Your task to perform on an android device: Add logitech g pro to the cart on target.com, then select checkout. Image 0: 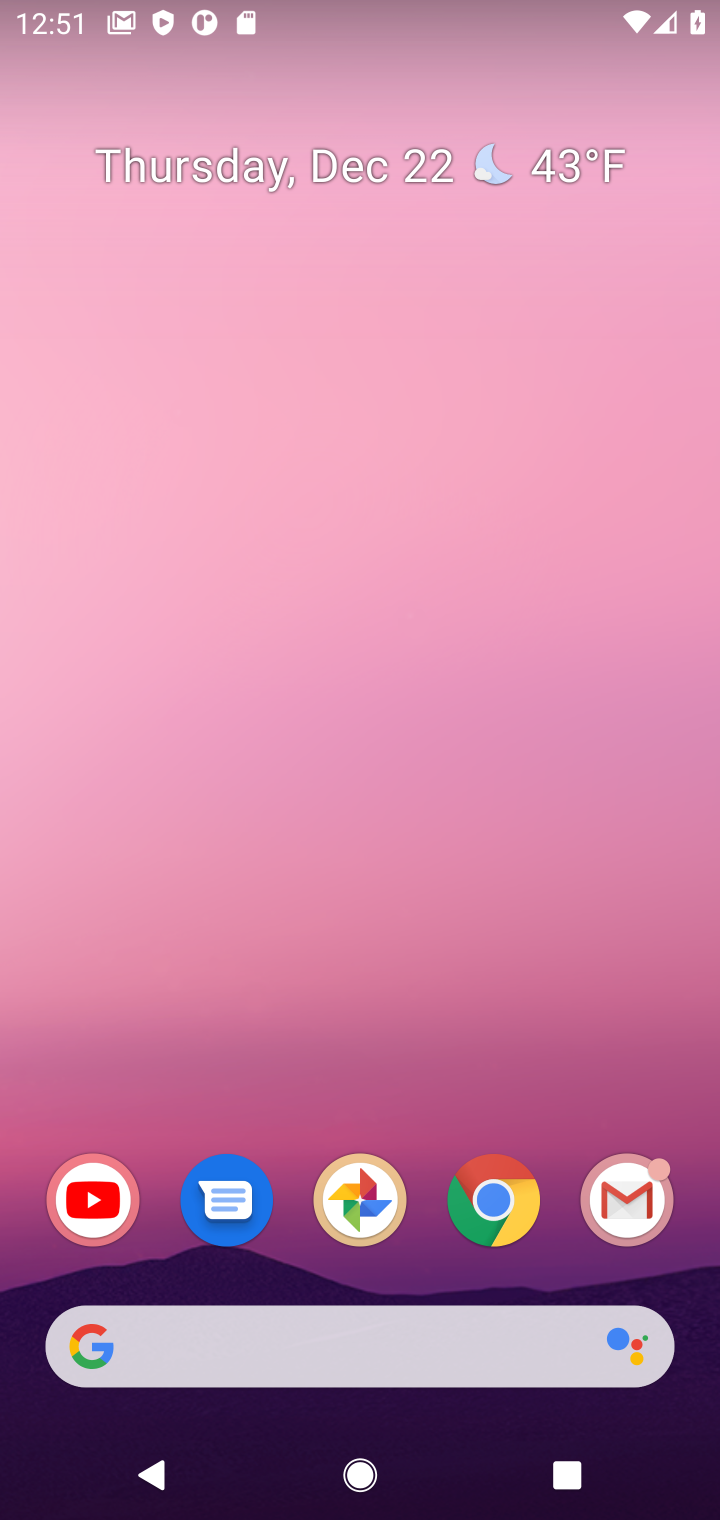
Step 0: click (491, 1207)
Your task to perform on an android device: Add logitech g pro to the cart on target.com, then select checkout. Image 1: 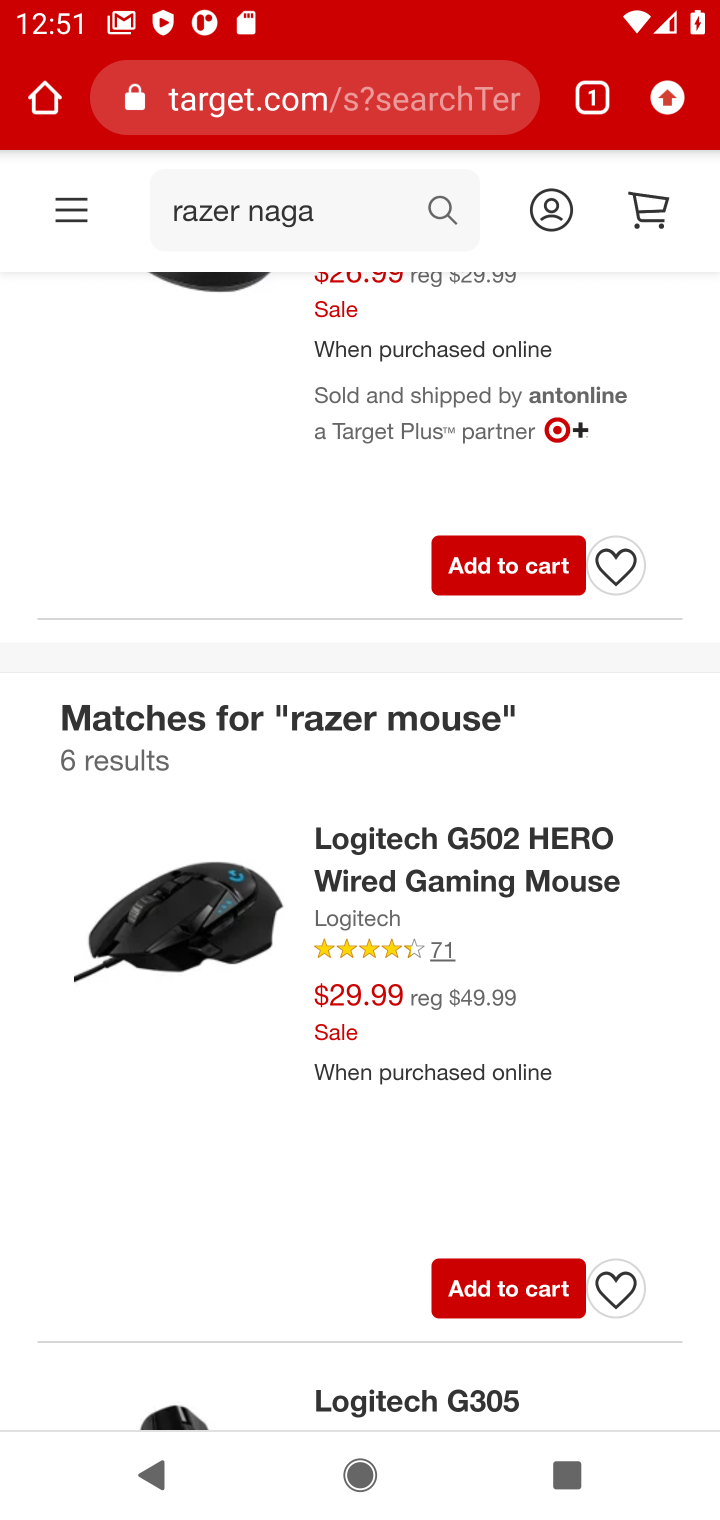
Step 1: click (434, 200)
Your task to perform on an android device: Add logitech g pro to the cart on target.com, then select checkout. Image 2: 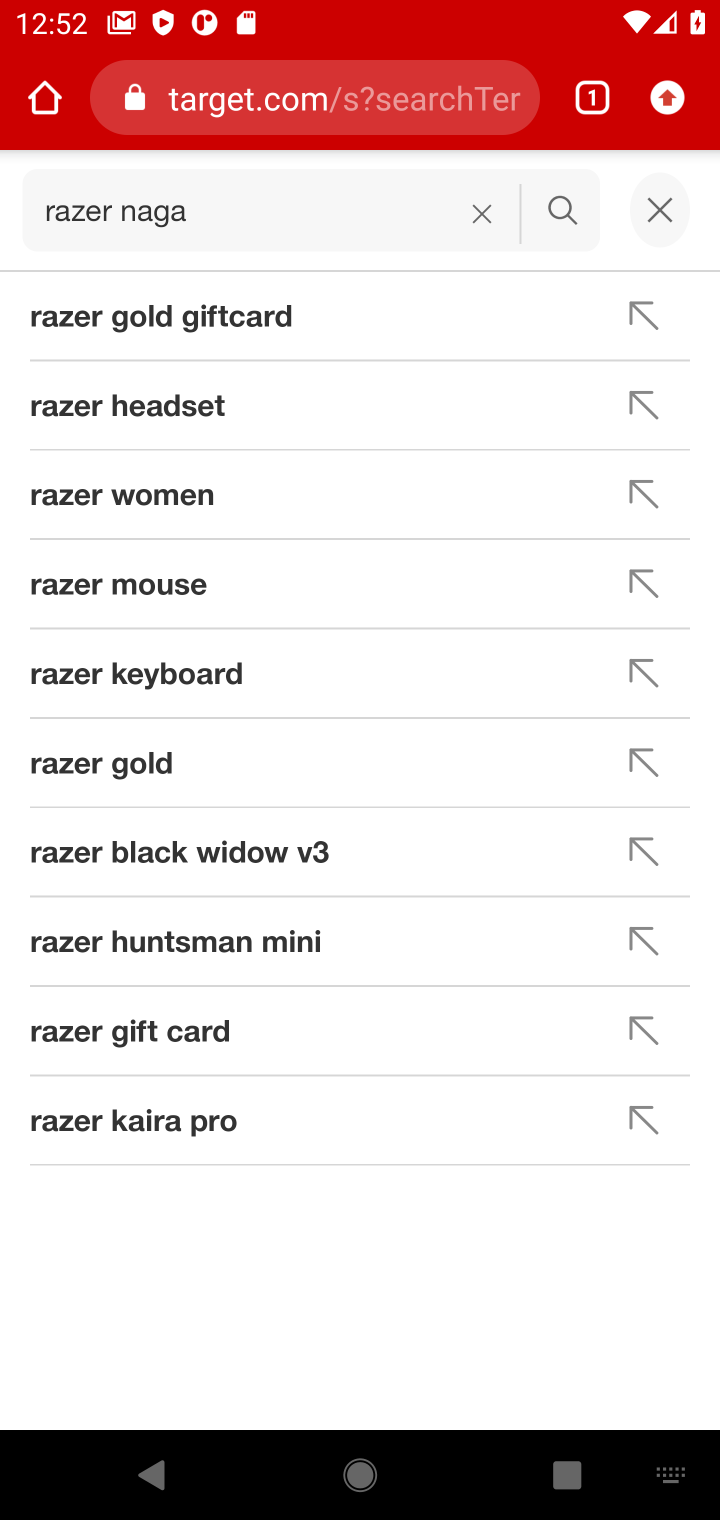
Step 2: click (480, 216)
Your task to perform on an android device: Add logitech g pro to the cart on target.com, then select checkout. Image 3: 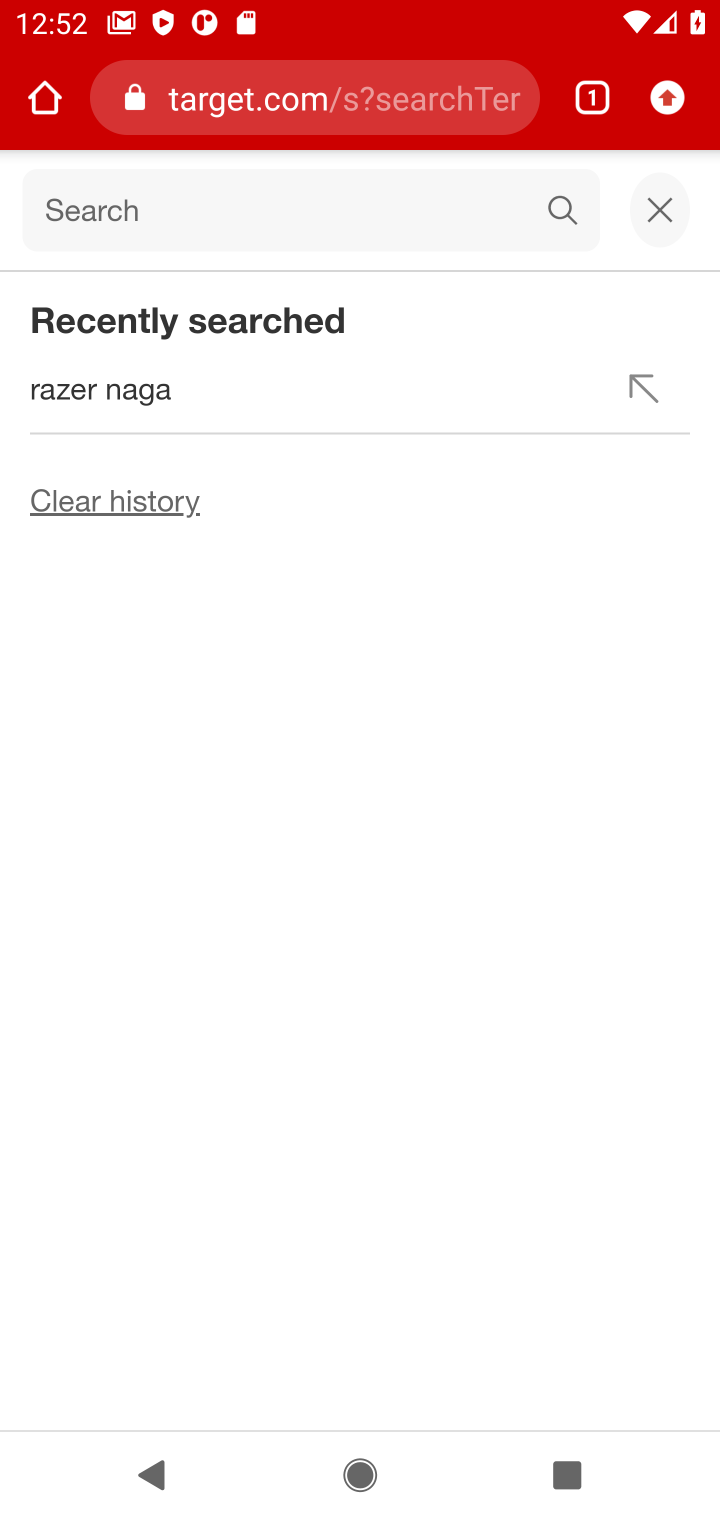
Step 3: type " logitech g pro"
Your task to perform on an android device: Add logitech g pro to the cart on target.com, then select checkout. Image 4: 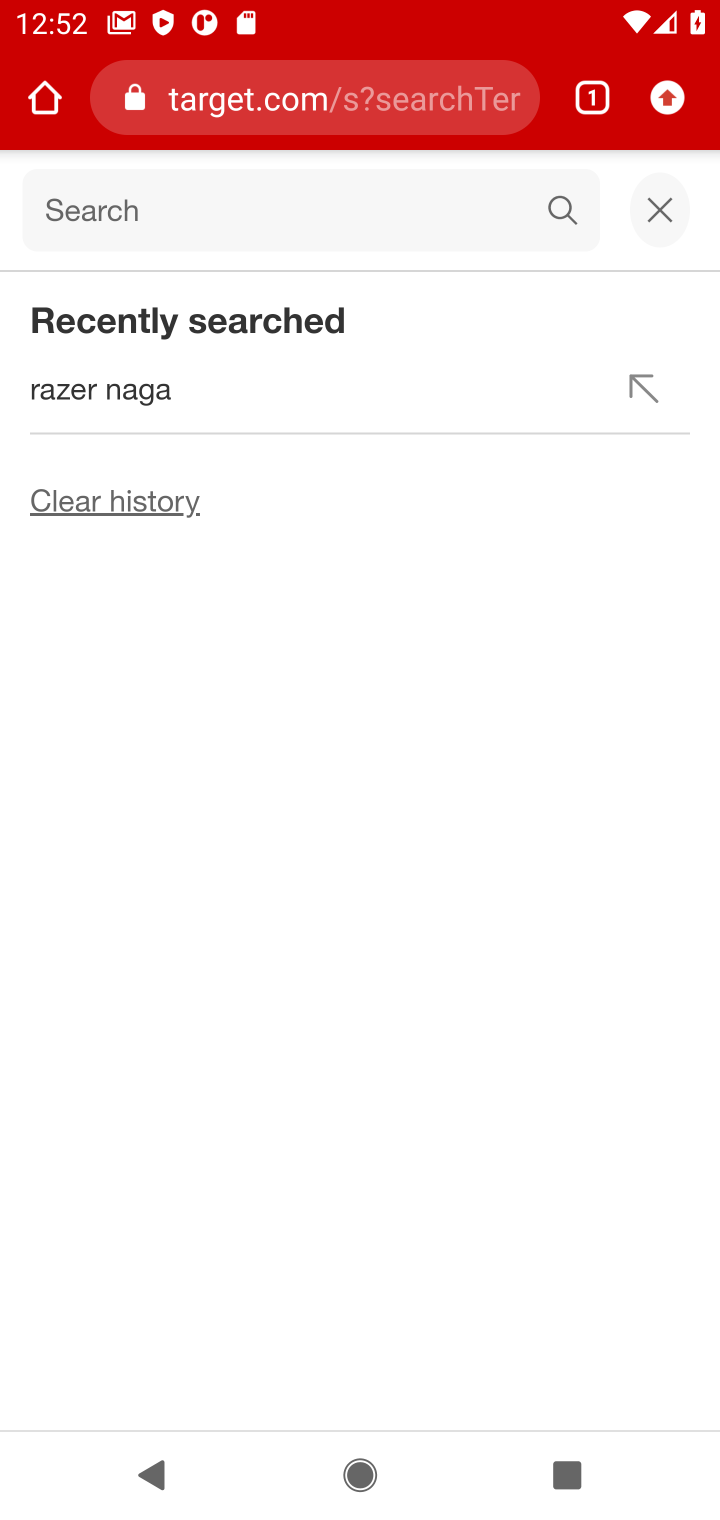
Step 4: click (70, 200)
Your task to perform on an android device: Add logitech g pro to the cart on target.com, then select checkout. Image 5: 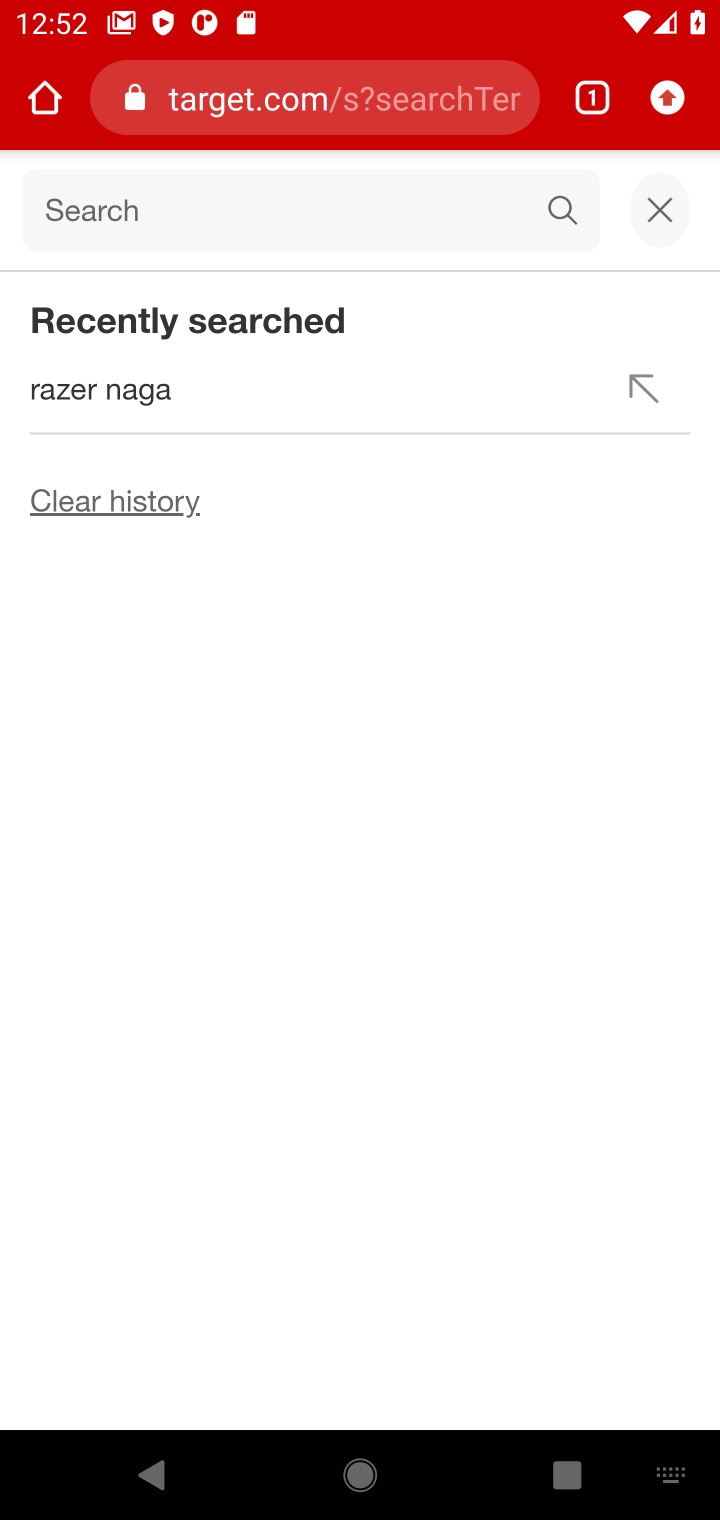
Step 5: type " logitech g pro"
Your task to perform on an android device: Add logitech g pro to the cart on target.com, then select checkout. Image 6: 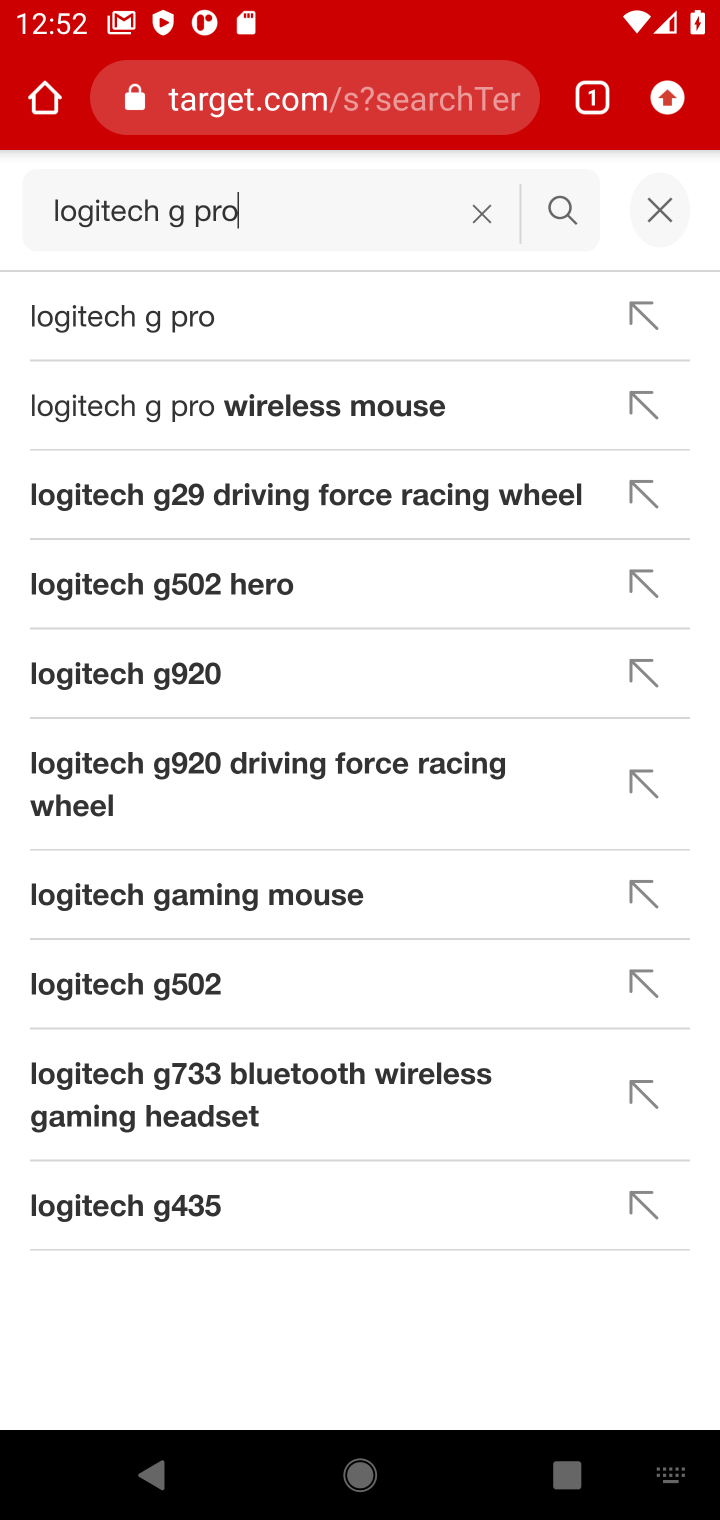
Step 6: click (157, 328)
Your task to perform on an android device: Add logitech g pro to the cart on target.com, then select checkout. Image 7: 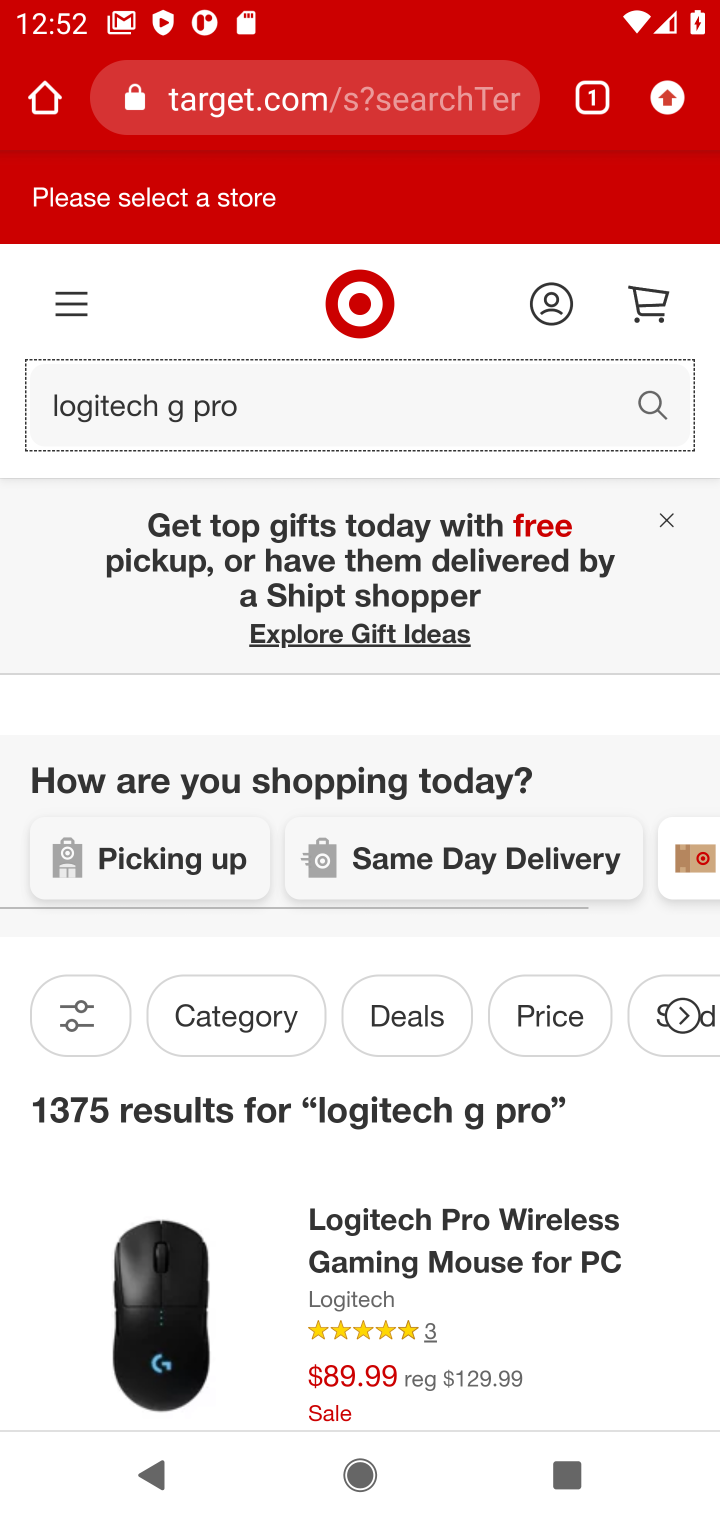
Step 7: task complete